Your task to perform on an android device: toggle pop-ups in chrome Image 0: 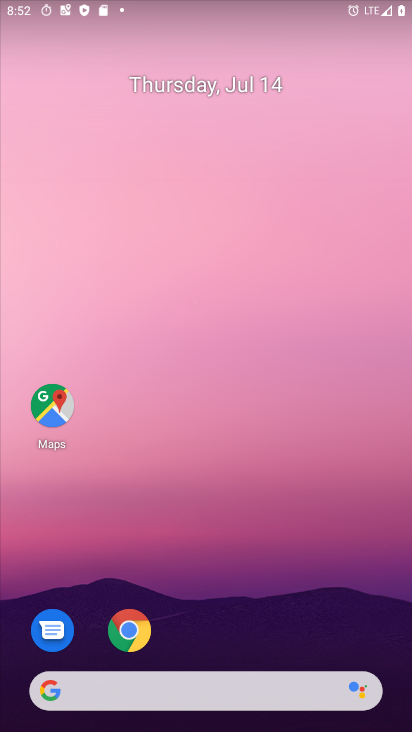
Step 0: click (126, 634)
Your task to perform on an android device: toggle pop-ups in chrome Image 1: 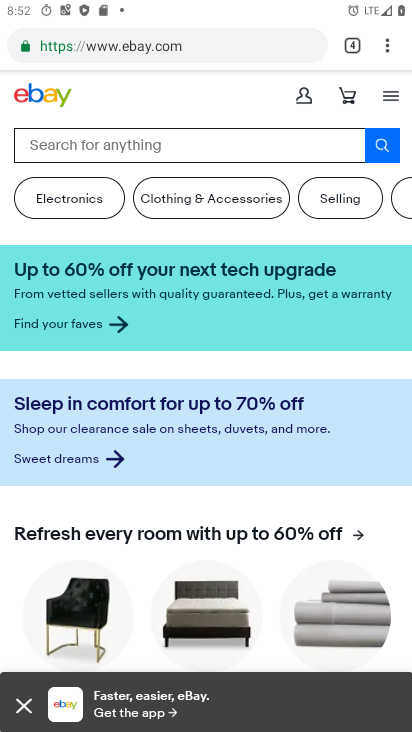
Step 1: click (390, 46)
Your task to perform on an android device: toggle pop-ups in chrome Image 2: 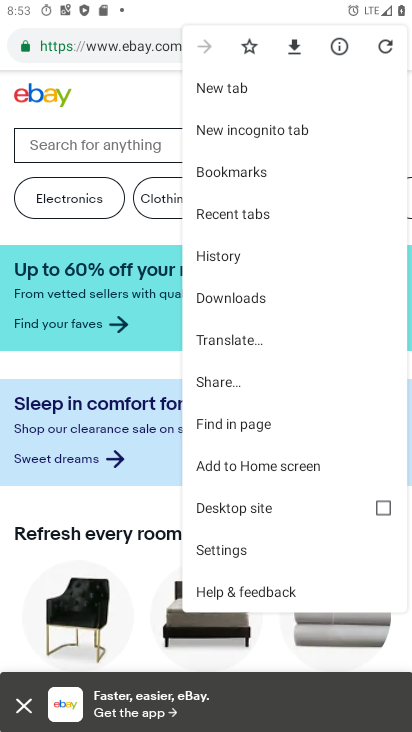
Step 2: click (211, 546)
Your task to perform on an android device: toggle pop-ups in chrome Image 3: 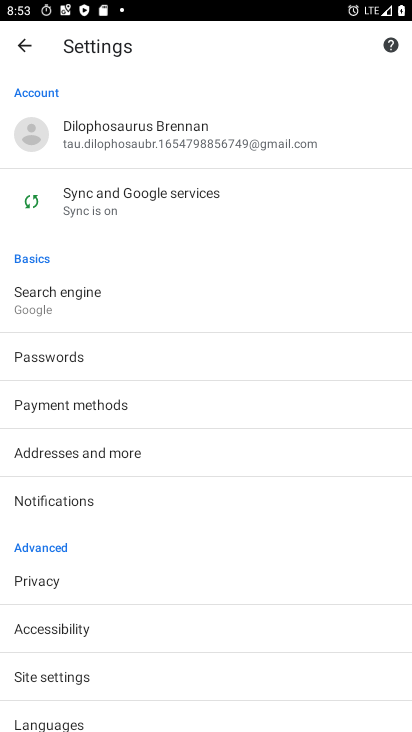
Step 3: click (53, 683)
Your task to perform on an android device: toggle pop-ups in chrome Image 4: 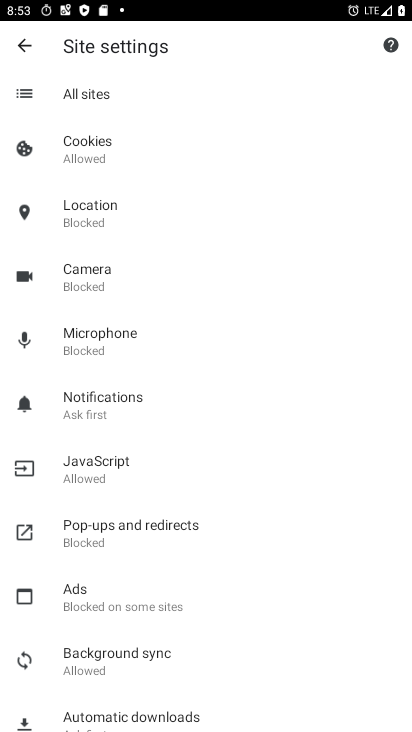
Step 4: click (84, 532)
Your task to perform on an android device: toggle pop-ups in chrome Image 5: 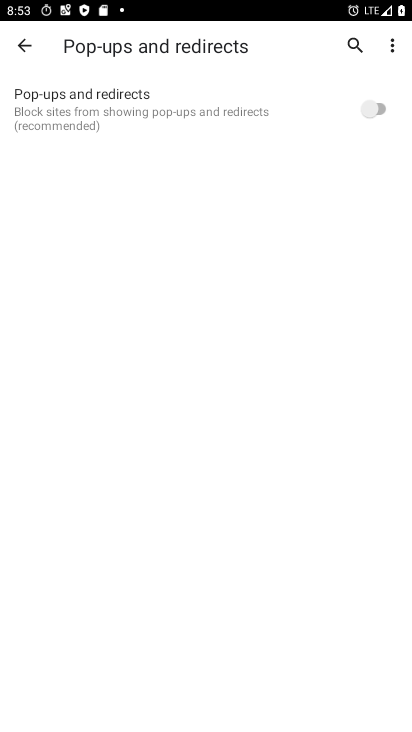
Step 5: click (375, 103)
Your task to perform on an android device: toggle pop-ups in chrome Image 6: 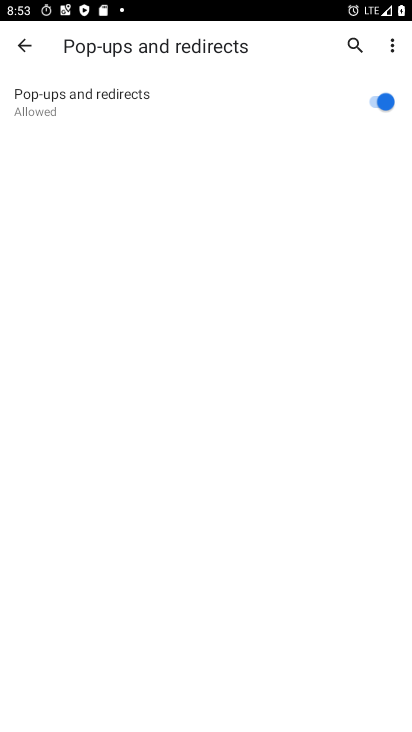
Step 6: task complete